Your task to perform on an android device: Open Chrome and go to settings Image 0: 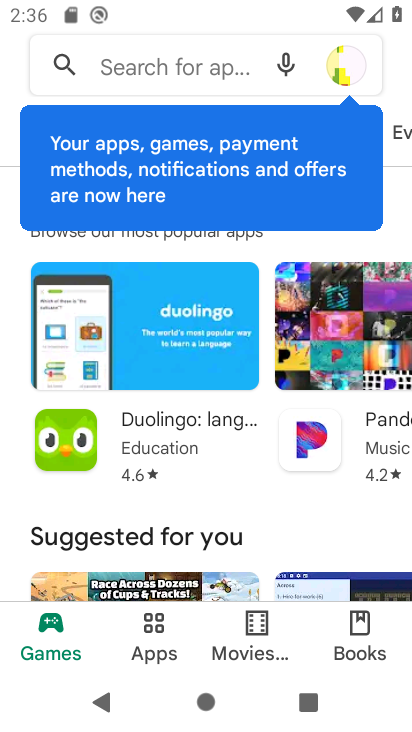
Step 0: press home button
Your task to perform on an android device: Open Chrome and go to settings Image 1: 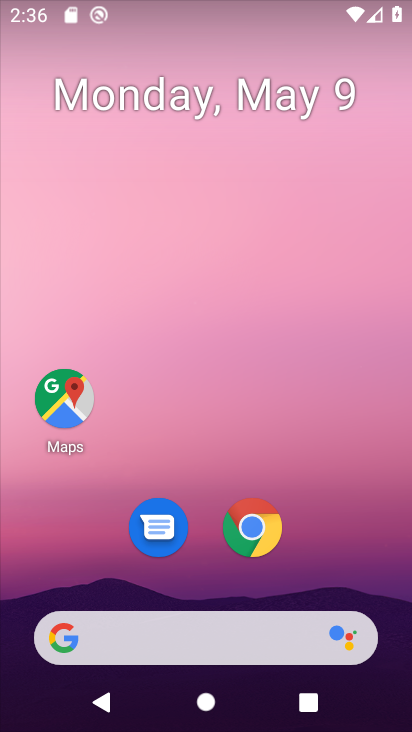
Step 1: click (258, 524)
Your task to perform on an android device: Open Chrome and go to settings Image 2: 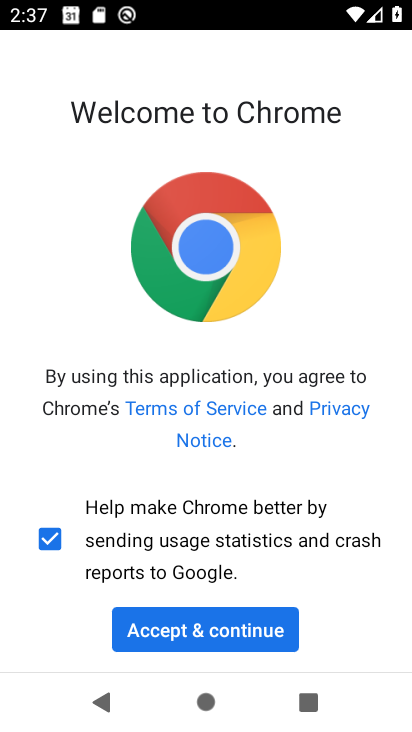
Step 2: click (242, 642)
Your task to perform on an android device: Open Chrome and go to settings Image 3: 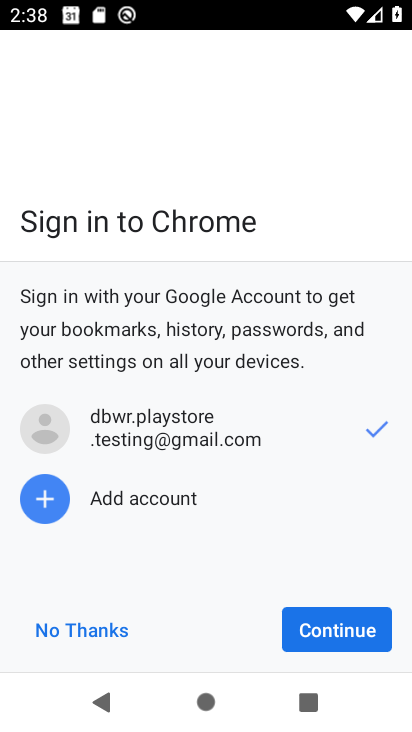
Step 3: click (328, 636)
Your task to perform on an android device: Open Chrome and go to settings Image 4: 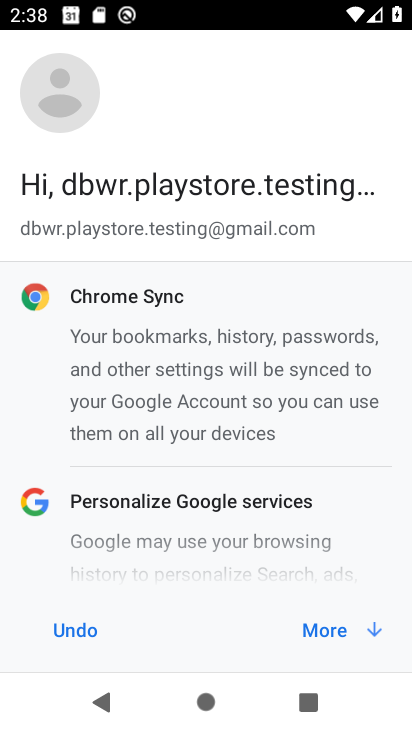
Step 4: click (327, 646)
Your task to perform on an android device: Open Chrome and go to settings Image 5: 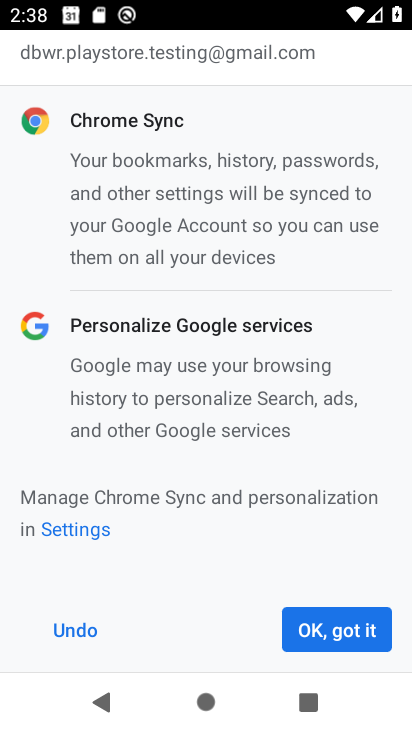
Step 5: click (326, 645)
Your task to perform on an android device: Open Chrome and go to settings Image 6: 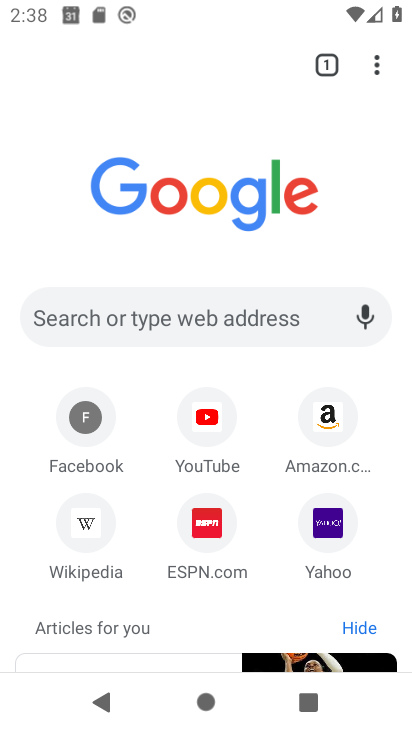
Step 6: click (378, 73)
Your task to perform on an android device: Open Chrome and go to settings Image 7: 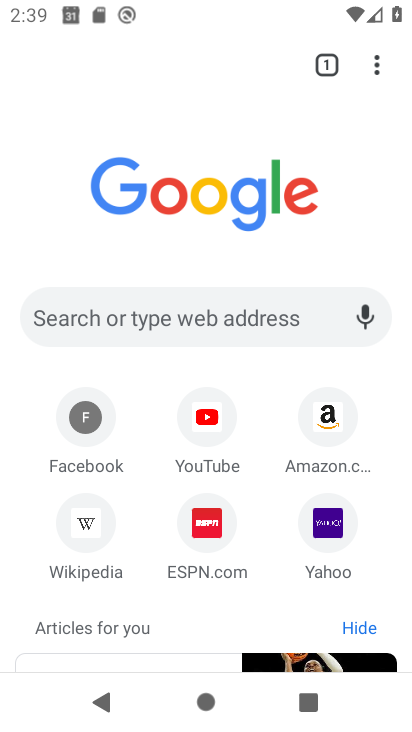
Step 7: click (362, 73)
Your task to perform on an android device: Open Chrome and go to settings Image 8: 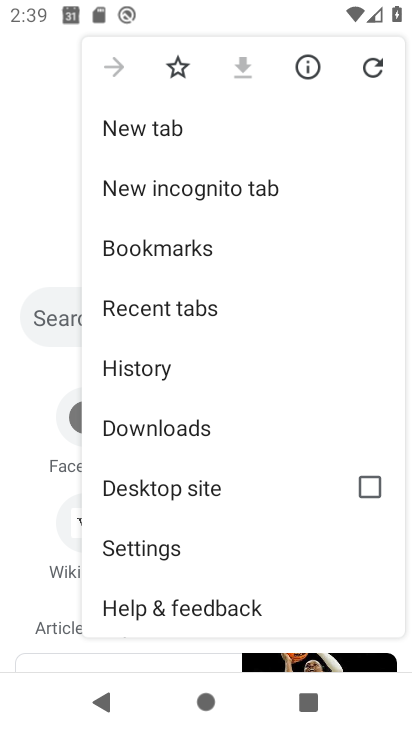
Step 8: click (167, 552)
Your task to perform on an android device: Open Chrome and go to settings Image 9: 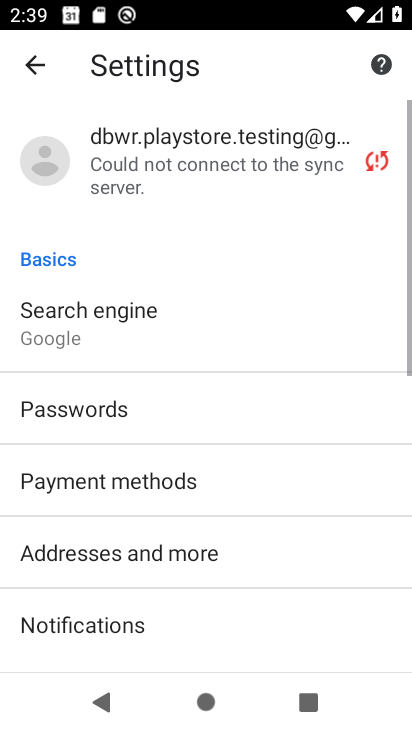
Step 9: task complete